Your task to perform on an android device: read, delete, or share a saved page in the chrome app Image 0: 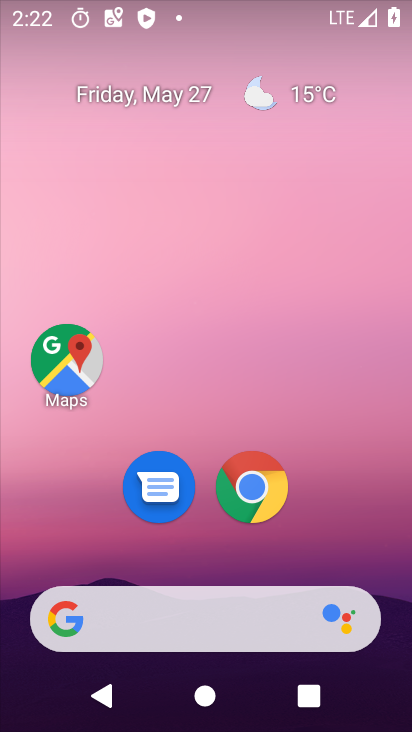
Step 0: click (251, 487)
Your task to perform on an android device: read, delete, or share a saved page in the chrome app Image 1: 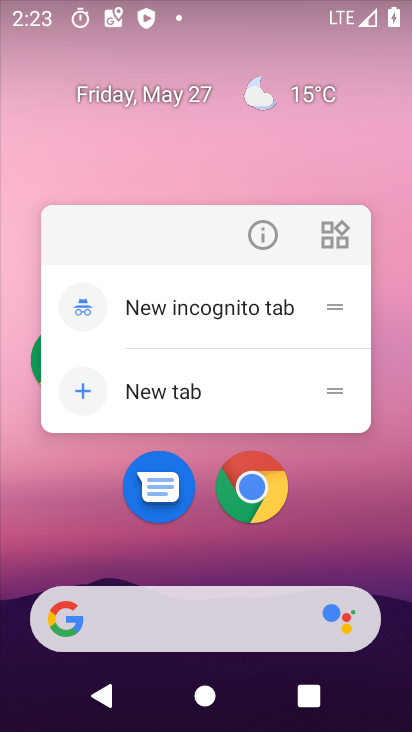
Step 1: click (324, 504)
Your task to perform on an android device: read, delete, or share a saved page in the chrome app Image 2: 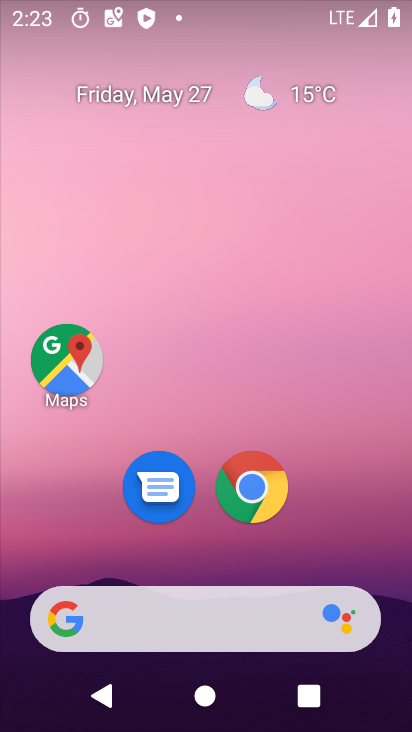
Step 2: drag from (326, 506) to (309, 99)
Your task to perform on an android device: read, delete, or share a saved page in the chrome app Image 3: 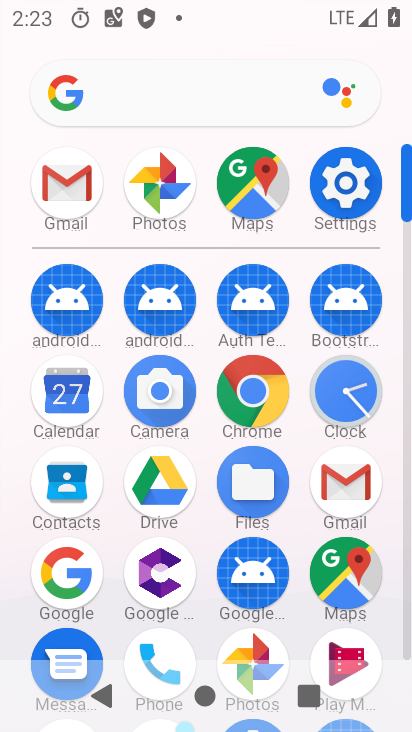
Step 3: click (254, 367)
Your task to perform on an android device: read, delete, or share a saved page in the chrome app Image 4: 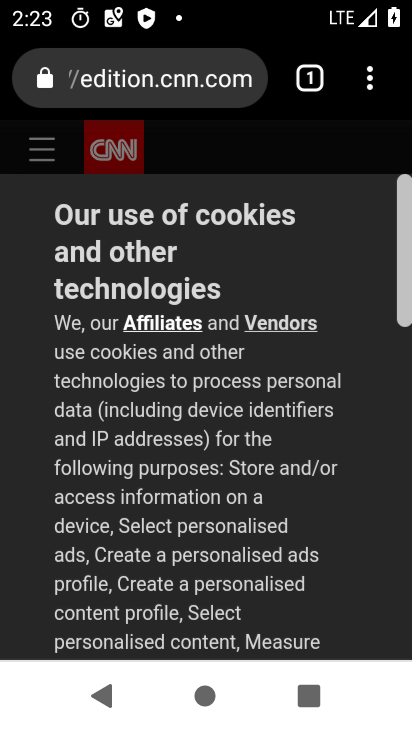
Step 4: task complete